Your task to perform on an android device: toggle location history Image 0: 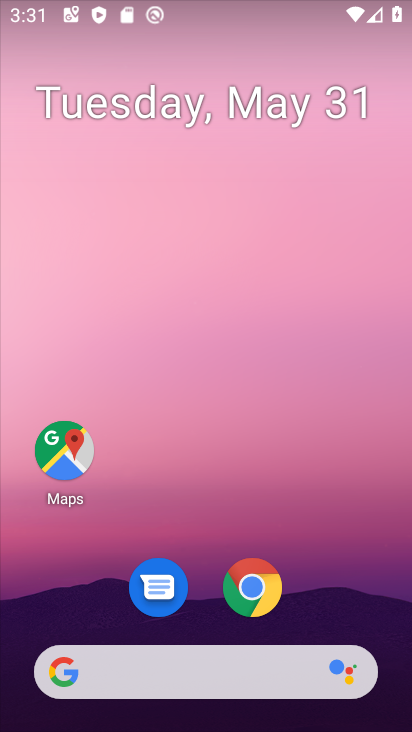
Step 0: drag from (325, 621) to (303, 105)
Your task to perform on an android device: toggle location history Image 1: 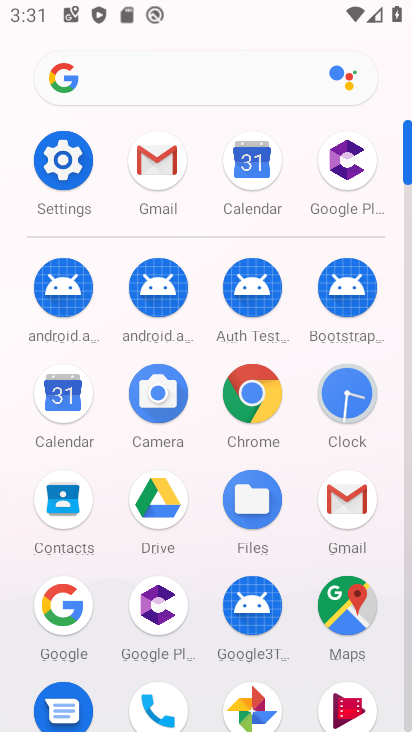
Step 1: click (67, 148)
Your task to perform on an android device: toggle location history Image 2: 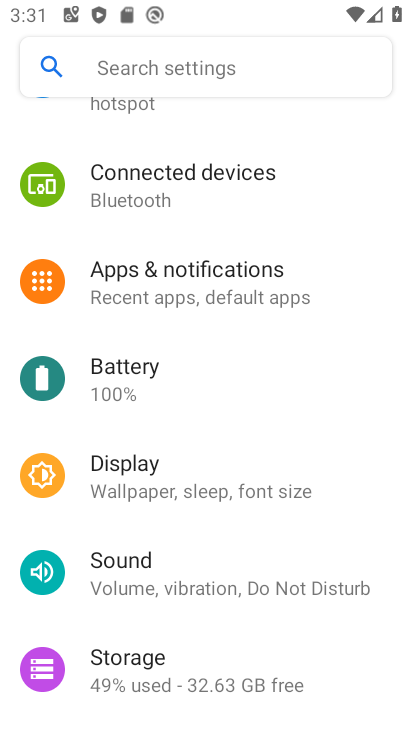
Step 2: drag from (183, 631) to (166, 243)
Your task to perform on an android device: toggle location history Image 3: 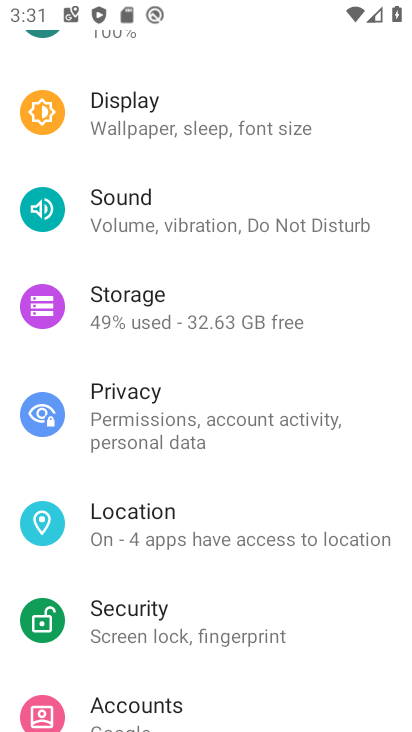
Step 3: click (176, 529)
Your task to perform on an android device: toggle location history Image 4: 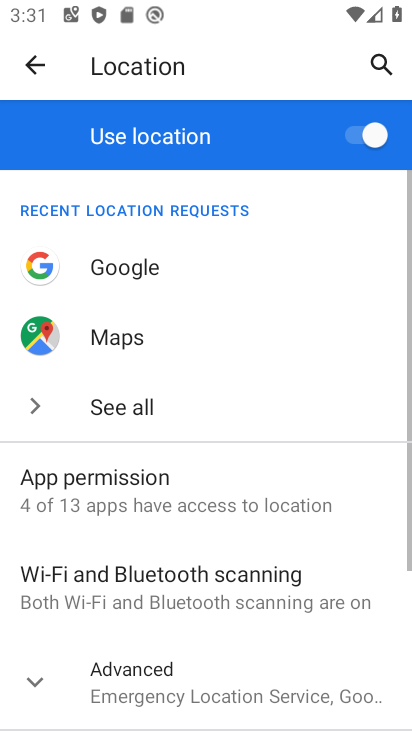
Step 4: click (147, 681)
Your task to perform on an android device: toggle location history Image 5: 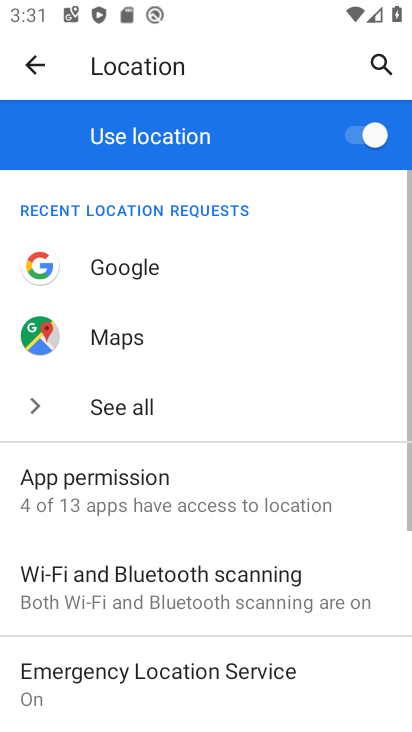
Step 5: drag from (149, 681) to (155, 423)
Your task to perform on an android device: toggle location history Image 6: 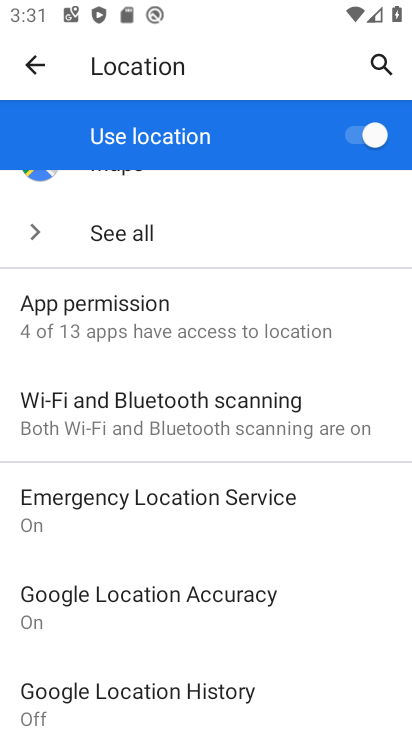
Step 6: click (144, 696)
Your task to perform on an android device: toggle location history Image 7: 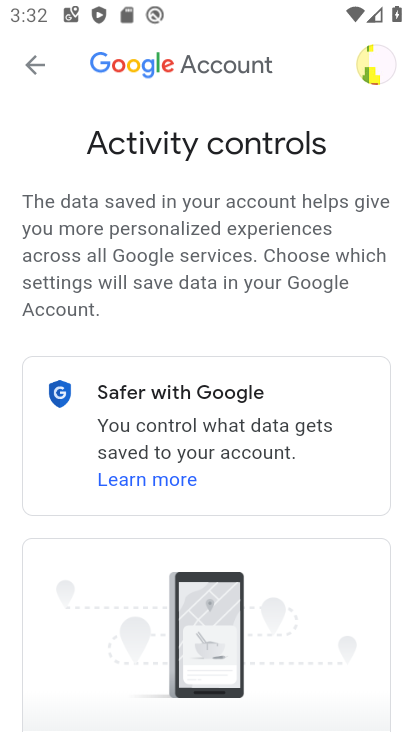
Step 7: drag from (276, 612) to (243, 186)
Your task to perform on an android device: toggle location history Image 8: 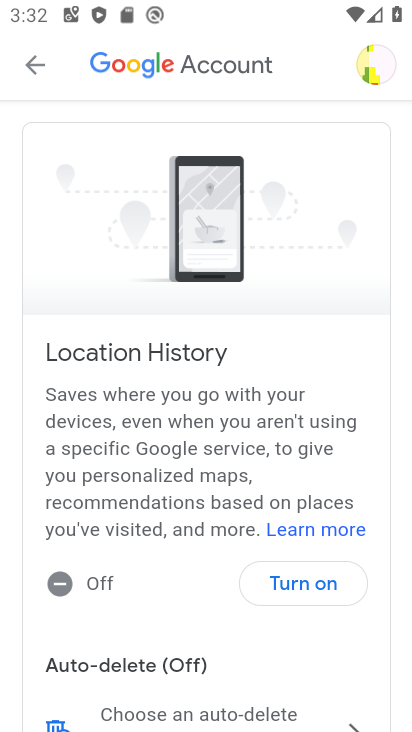
Step 8: click (303, 582)
Your task to perform on an android device: toggle location history Image 9: 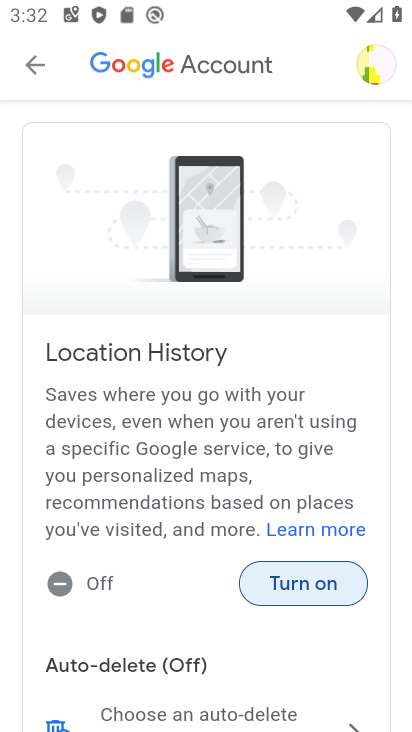
Step 9: click (302, 574)
Your task to perform on an android device: toggle location history Image 10: 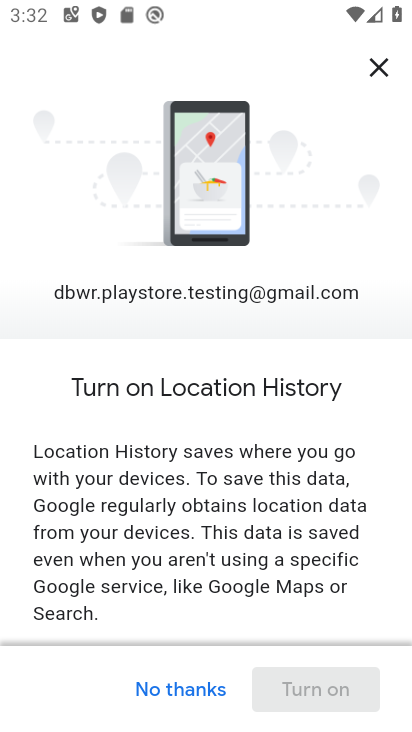
Step 10: drag from (299, 570) to (282, 26)
Your task to perform on an android device: toggle location history Image 11: 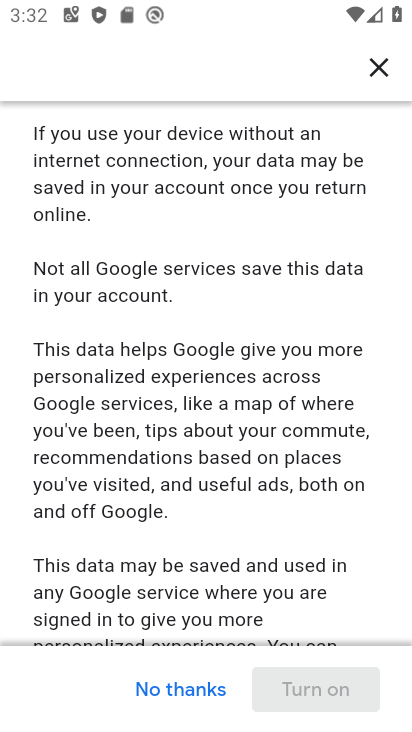
Step 11: drag from (301, 532) to (300, 2)
Your task to perform on an android device: toggle location history Image 12: 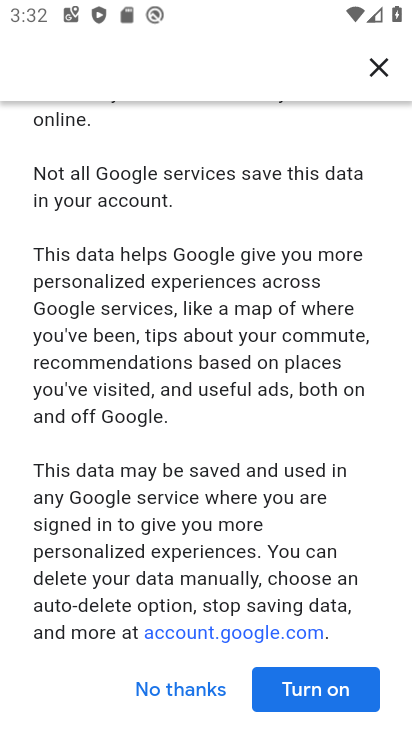
Step 12: click (317, 685)
Your task to perform on an android device: toggle location history Image 13: 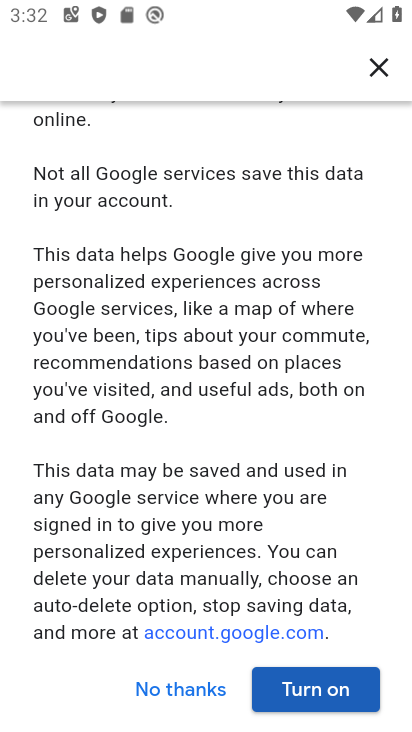
Step 13: click (316, 695)
Your task to perform on an android device: toggle location history Image 14: 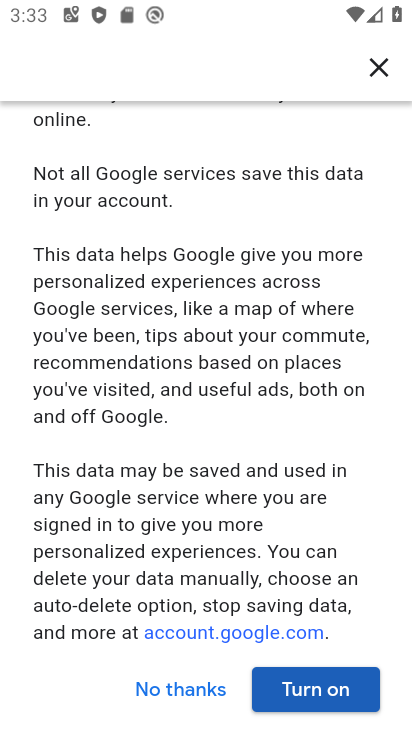
Step 14: click (313, 689)
Your task to perform on an android device: toggle location history Image 15: 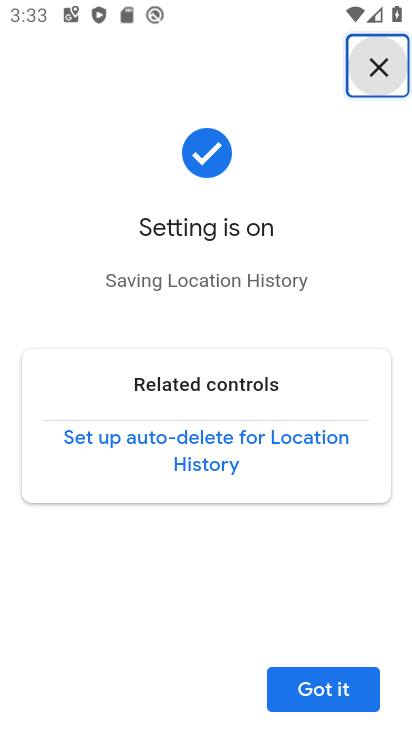
Step 15: click (331, 696)
Your task to perform on an android device: toggle location history Image 16: 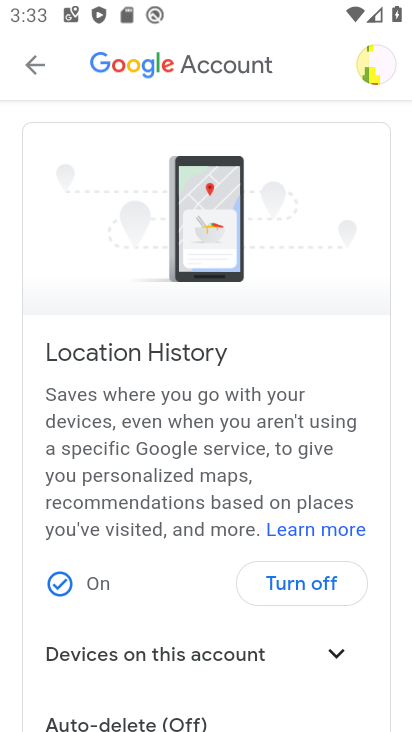
Step 16: task complete